Your task to perform on an android device: Open calendar and show me the second week of next month Image 0: 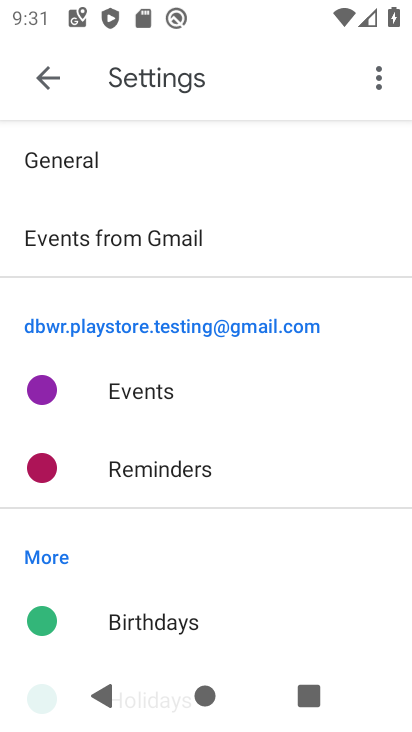
Step 0: press home button
Your task to perform on an android device: Open calendar and show me the second week of next month Image 1: 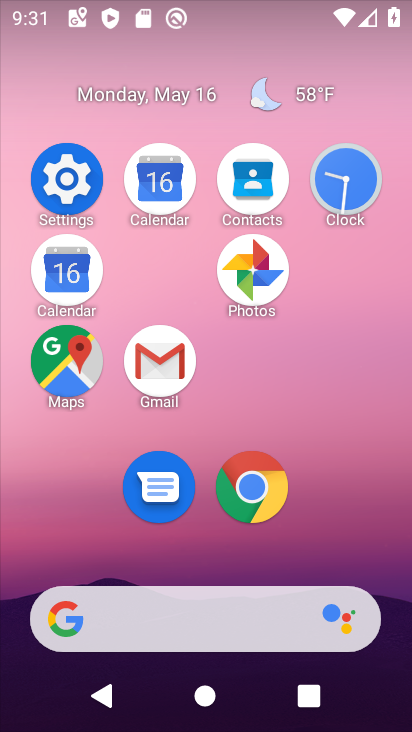
Step 1: click (59, 274)
Your task to perform on an android device: Open calendar and show me the second week of next month Image 2: 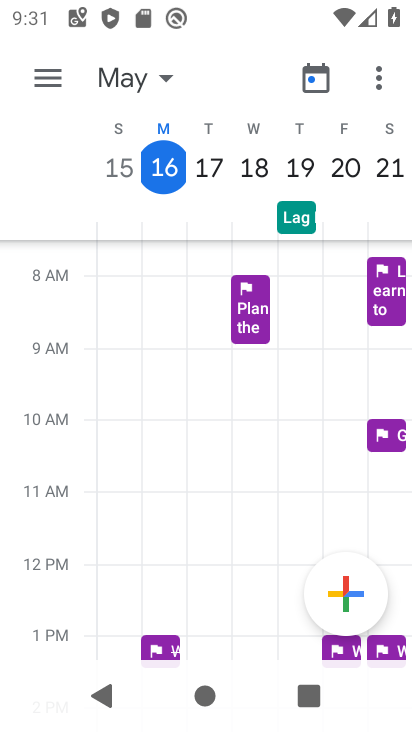
Step 2: click (147, 86)
Your task to perform on an android device: Open calendar and show me the second week of next month Image 3: 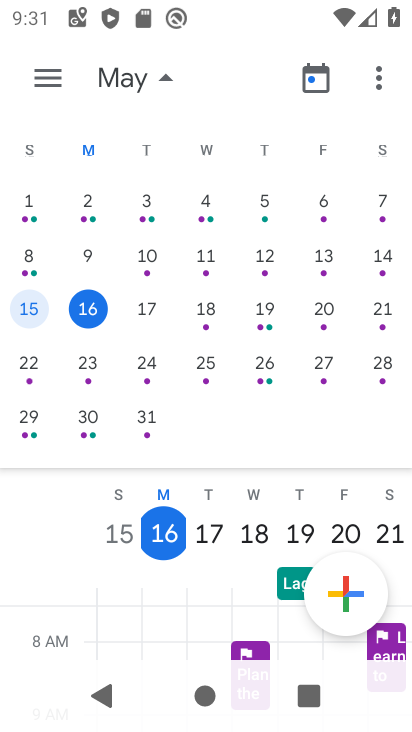
Step 3: drag from (394, 281) to (3, 184)
Your task to perform on an android device: Open calendar and show me the second week of next month Image 4: 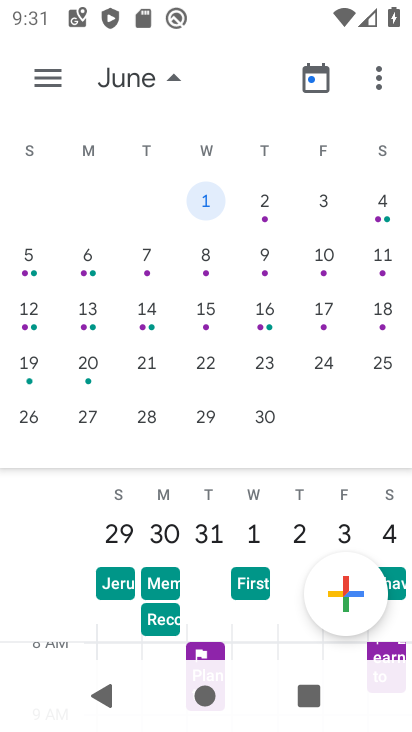
Step 4: click (57, 85)
Your task to perform on an android device: Open calendar and show me the second week of next month Image 5: 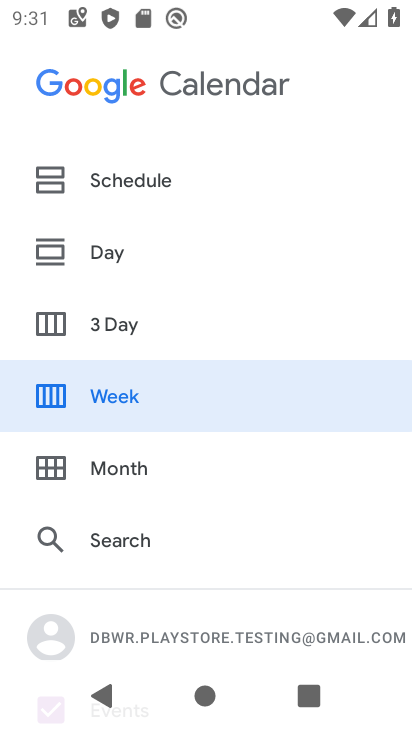
Step 5: click (112, 395)
Your task to perform on an android device: Open calendar and show me the second week of next month Image 6: 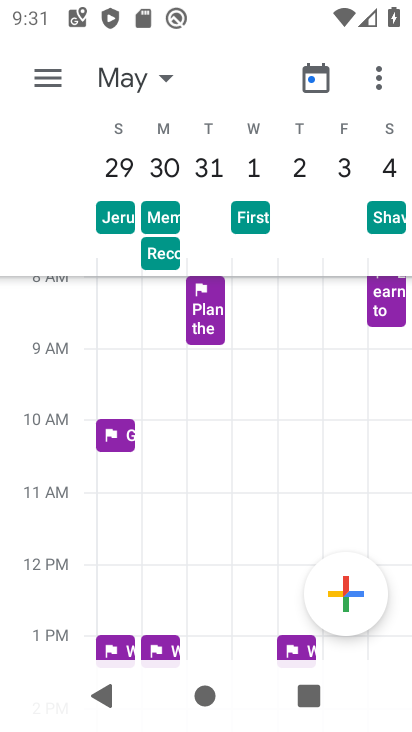
Step 6: task complete